Your task to perform on an android device: Check the weather Image 0: 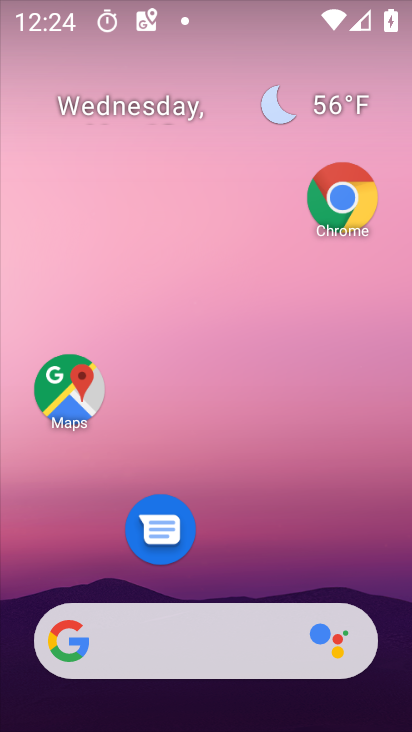
Step 0: click (335, 93)
Your task to perform on an android device: Check the weather Image 1: 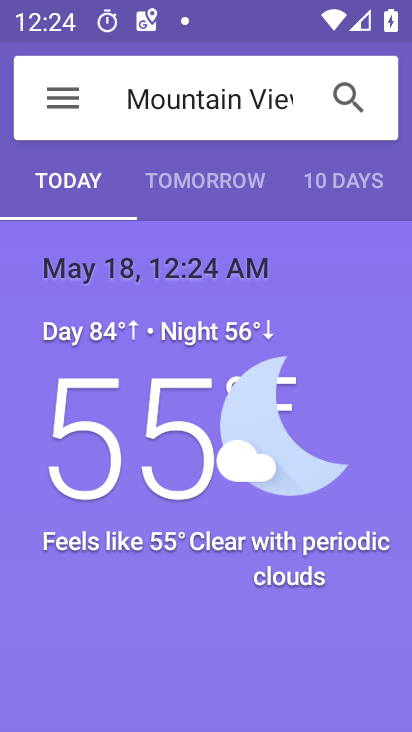
Step 1: task complete